Your task to perform on an android device: Open ESPN.com Image 0: 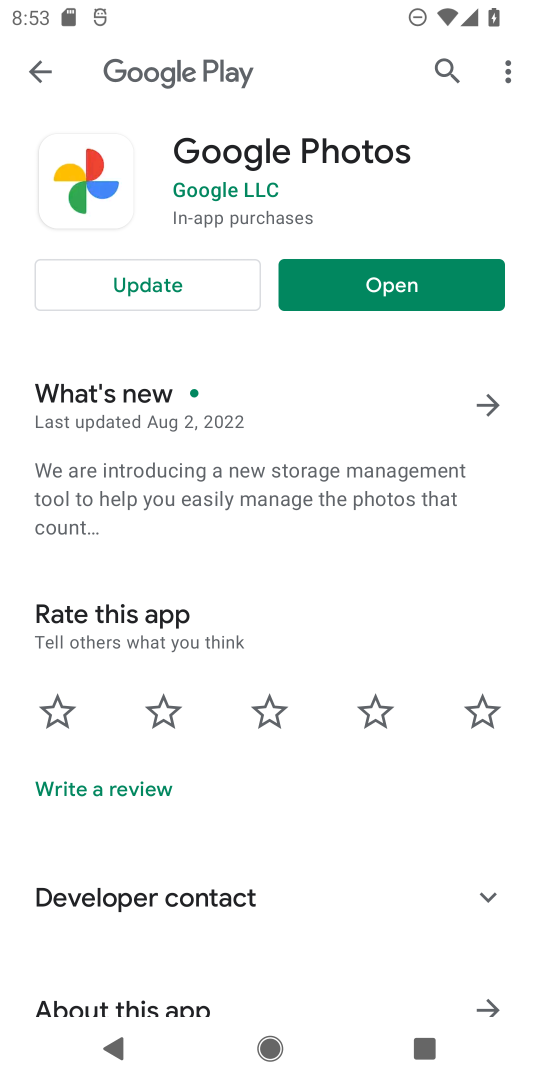
Step 0: press home button
Your task to perform on an android device: Open ESPN.com Image 1: 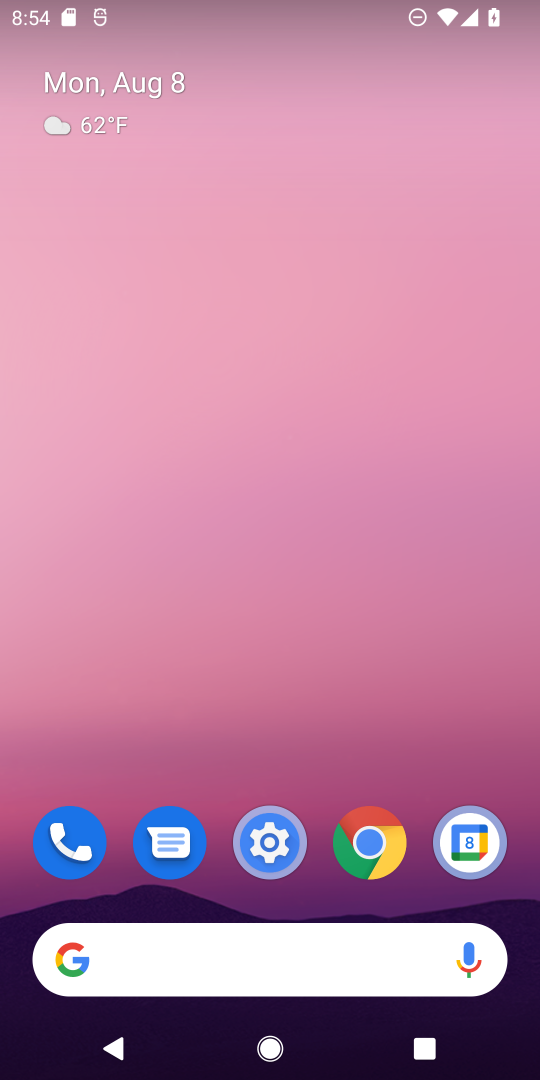
Step 1: click (351, 963)
Your task to perform on an android device: Open ESPN.com Image 2: 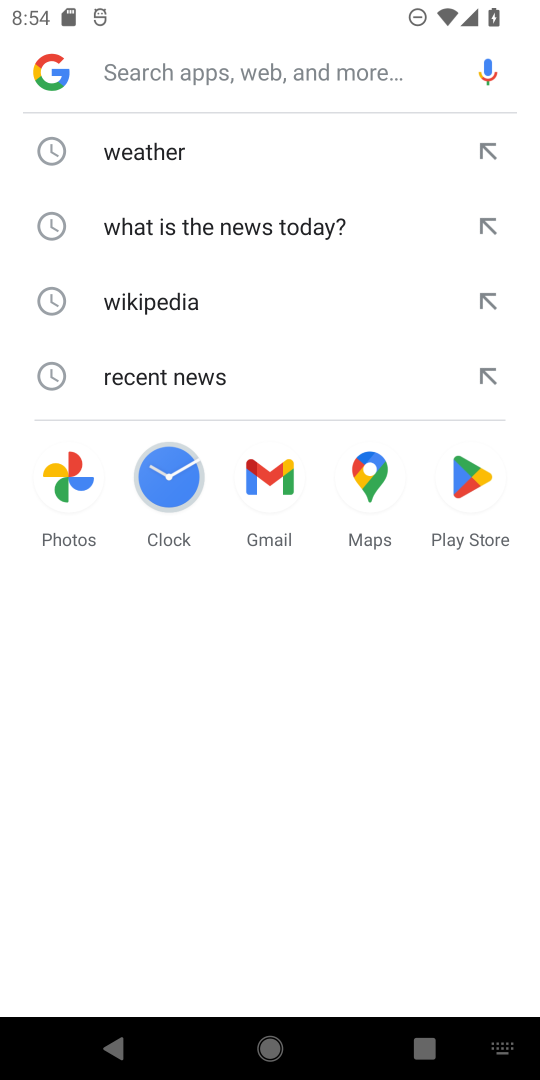
Step 2: type "espn.com"
Your task to perform on an android device: Open ESPN.com Image 3: 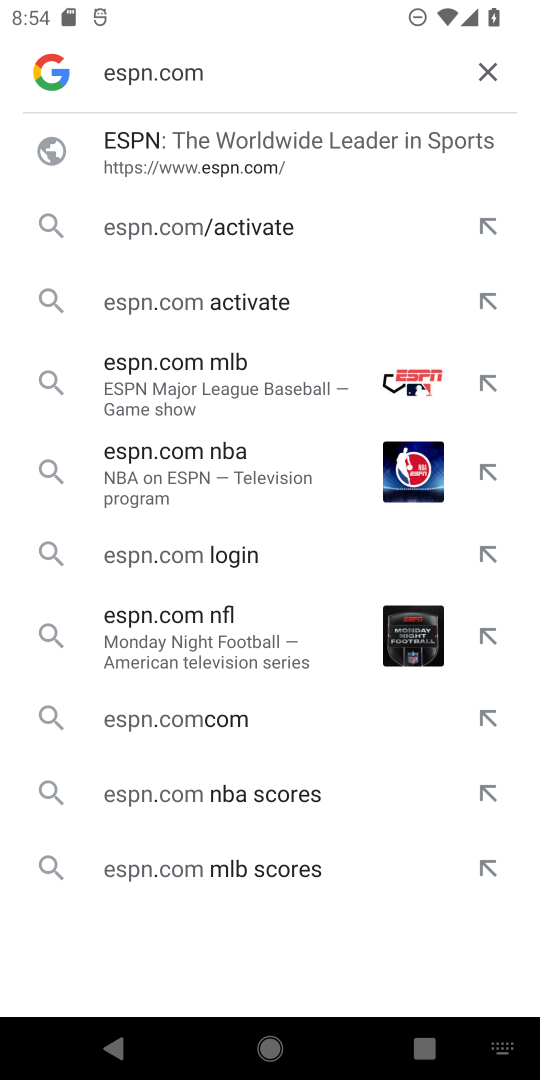
Step 3: click (306, 165)
Your task to perform on an android device: Open ESPN.com Image 4: 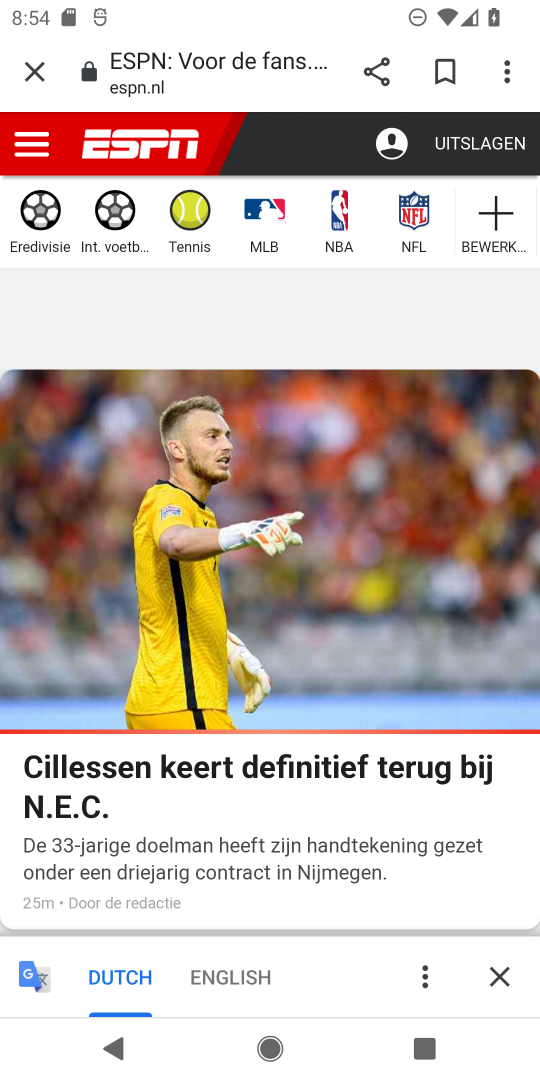
Step 4: task complete